Your task to perform on an android device: turn off smart reply in the gmail app Image 0: 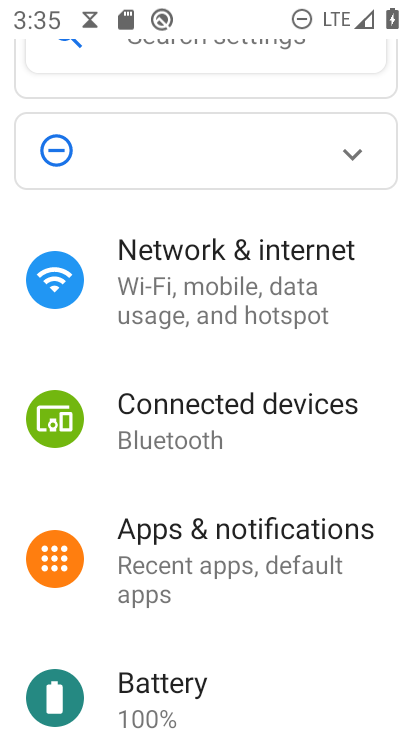
Step 0: press home button
Your task to perform on an android device: turn off smart reply in the gmail app Image 1: 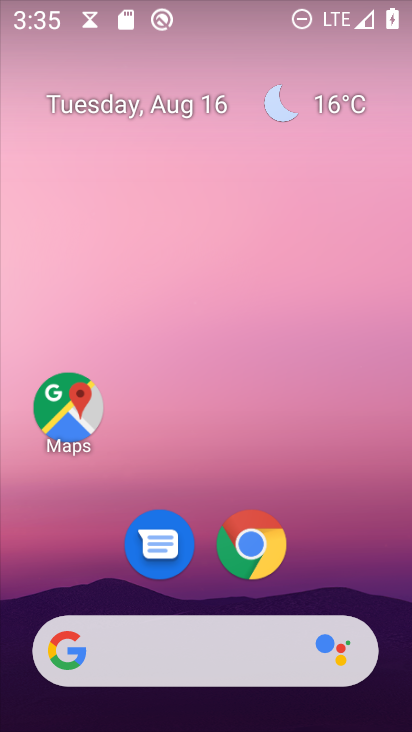
Step 1: drag from (165, 654) to (266, 40)
Your task to perform on an android device: turn off smart reply in the gmail app Image 2: 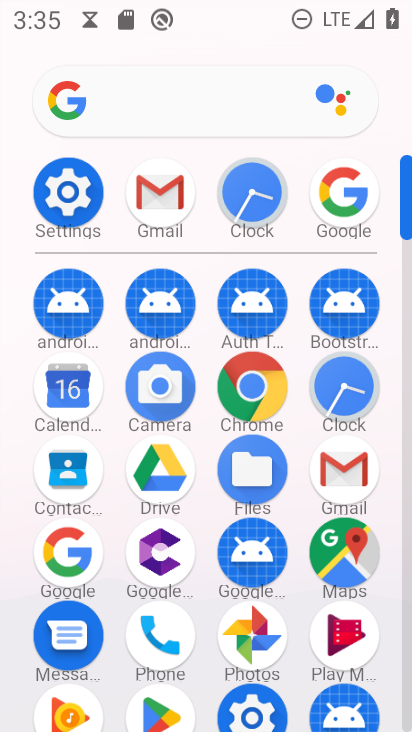
Step 2: click (157, 195)
Your task to perform on an android device: turn off smart reply in the gmail app Image 3: 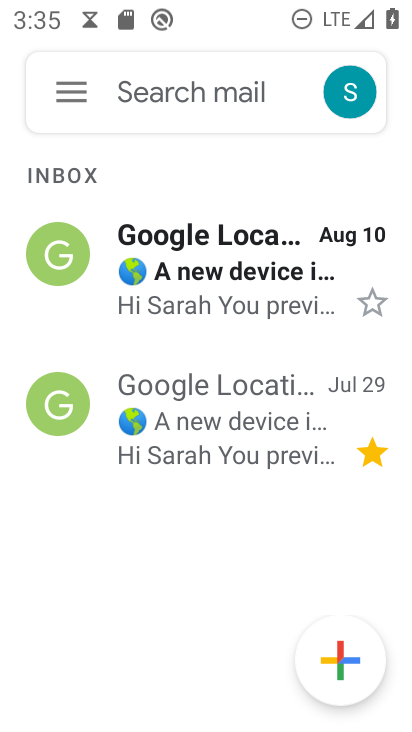
Step 3: click (71, 90)
Your task to perform on an android device: turn off smart reply in the gmail app Image 4: 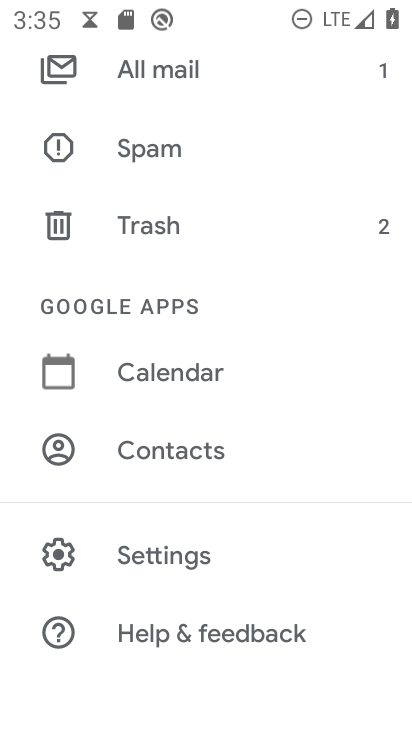
Step 4: click (163, 564)
Your task to perform on an android device: turn off smart reply in the gmail app Image 5: 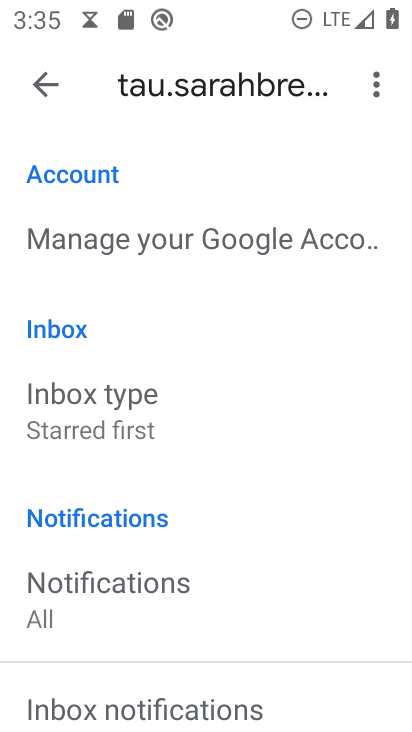
Step 5: drag from (145, 443) to (205, 327)
Your task to perform on an android device: turn off smart reply in the gmail app Image 6: 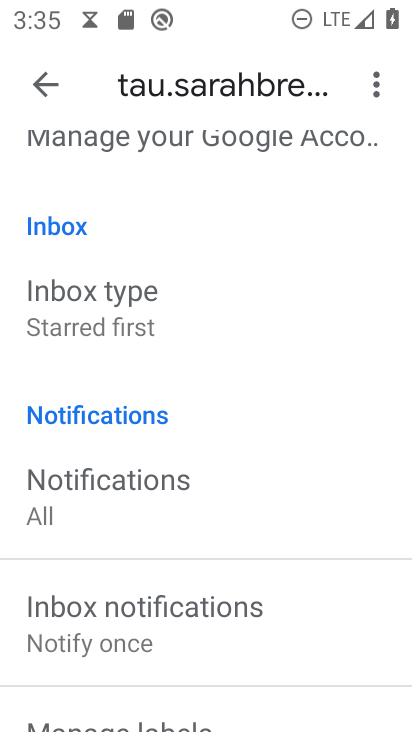
Step 6: drag from (122, 446) to (197, 337)
Your task to perform on an android device: turn off smart reply in the gmail app Image 7: 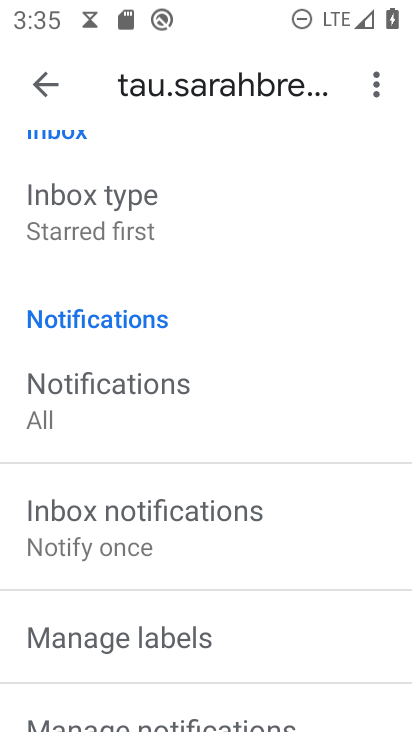
Step 7: drag from (131, 556) to (208, 412)
Your task to perform on an android device: turn off smart reply in the gmail app Image 8: 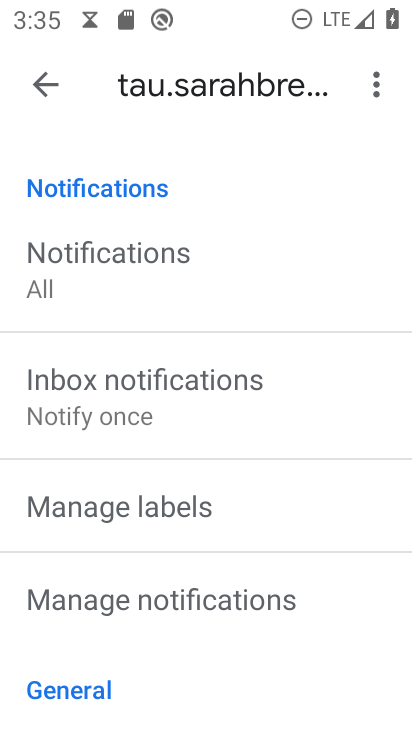
Step 8: drag from (134, 550) to (239, 410)
Your task to perform on an android device: turn off smart reply in the gmail app Image 9: 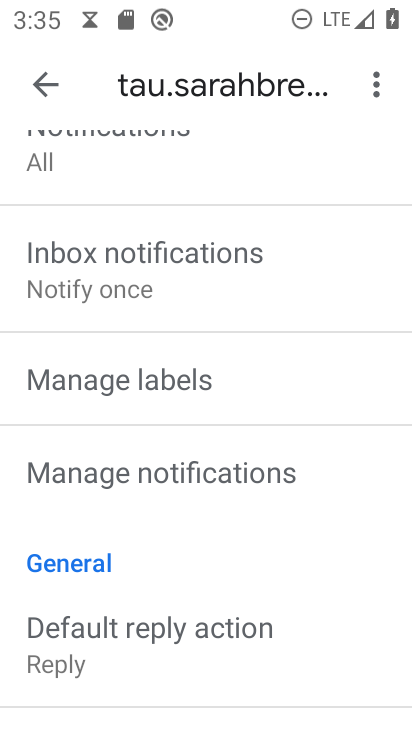
Step 9: drag from (139, 599) to (245, 426)
Your task to perform on an android device: turn off smart reply in the gmail app Image 10: 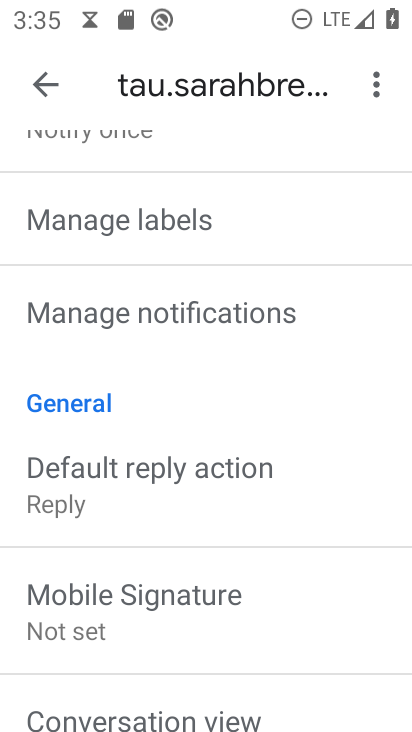
Step 10: drag from (130, 582) to (219, 419)
Your task to perform on an android device: turn off smart reply in the gmail app Image 11: 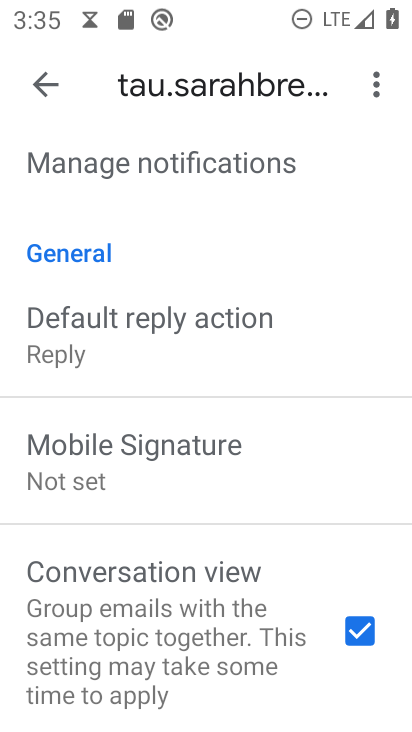
Step 11: drag from (122, 544) to (200, 370)
Your task to perform on an android device: turn off smart reply in the gmail app Image 12: 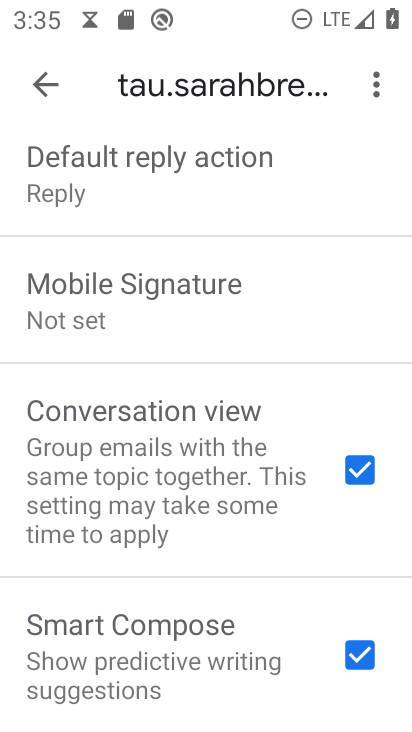
Step 12: drag from (122, 596) to (227, 455)
Your task to perform on an android device: turn off smart reply in the gmail app Image 13: 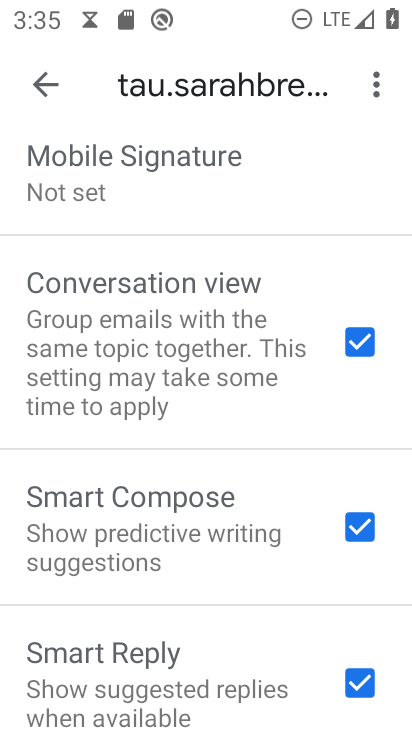
Step 13: drag from (171, 592) to (273, 445)
Your task to perform on an android device: turn off smart reply in the gmail app Image 14: 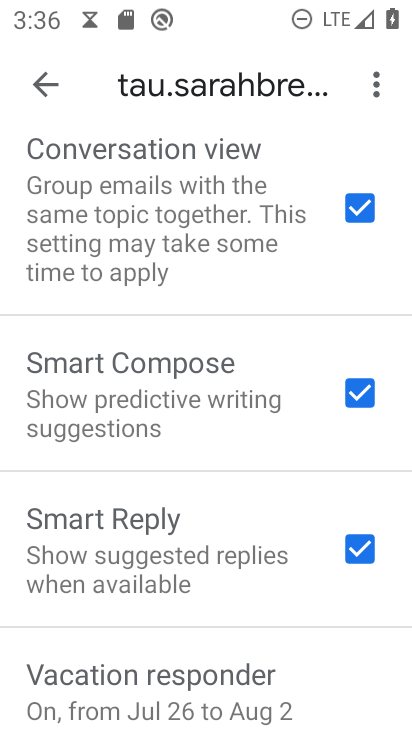
Step 14: click (355, 555)
Your task to perform on an android device: turn off smart reply in the gmail app Image 15: 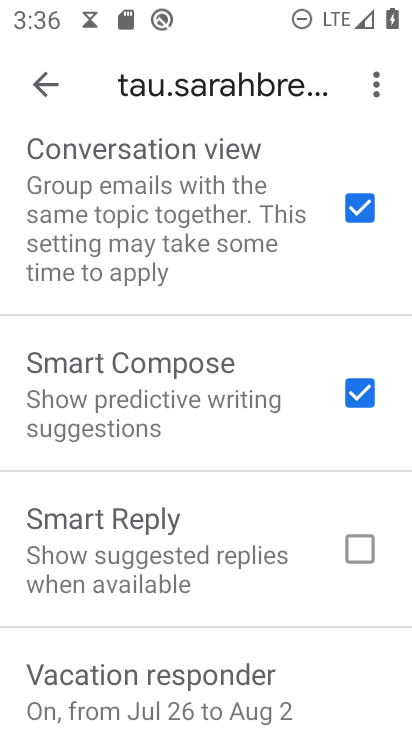
Step 15: task complete